Your task to perform on an android device: Open Chrome and go to settings Image 0: 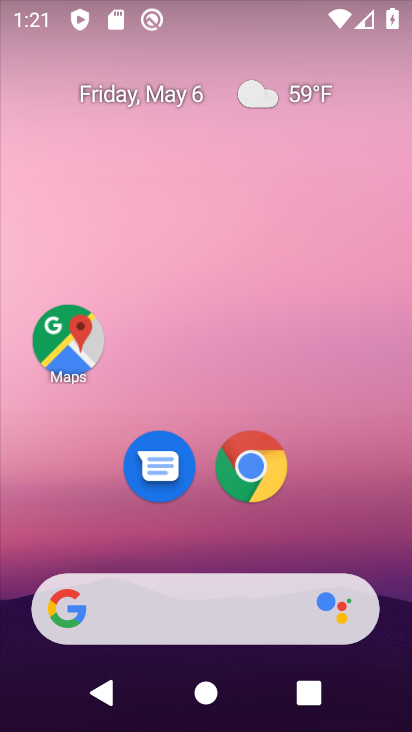
Step 0: drag from (212, 524) to (212, 93)
Your task to perform on an android device: Open Chrome and go to settings Image 1: 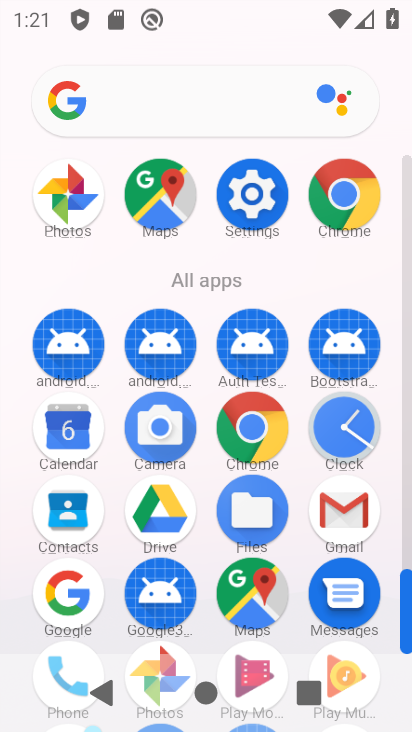
Step 1: drag from (208, 558) to (204, 155)
Your task to perform on an android device: Open Chrome and go to settings Image 2: 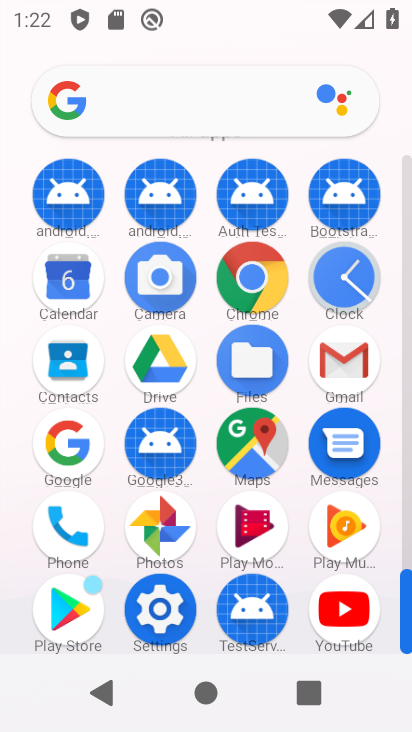
Step 2: click (244, 271)
Your task to perform on an android device: Open Chrome and go to settings Image 3: 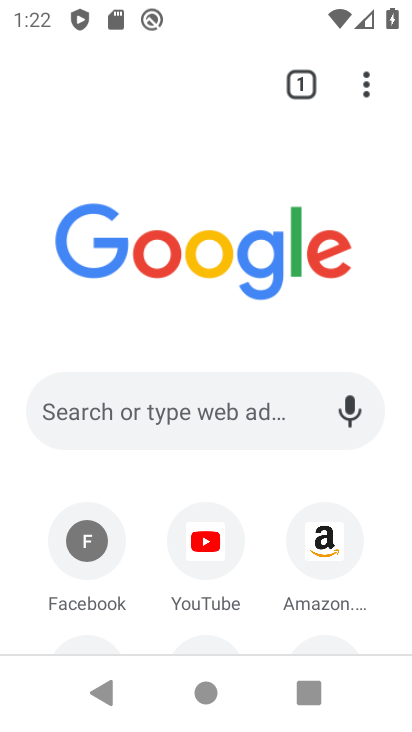
Step 3: click (368, 80)
Your task to perform on an android device: Open Chrome and go to settings Image 4: 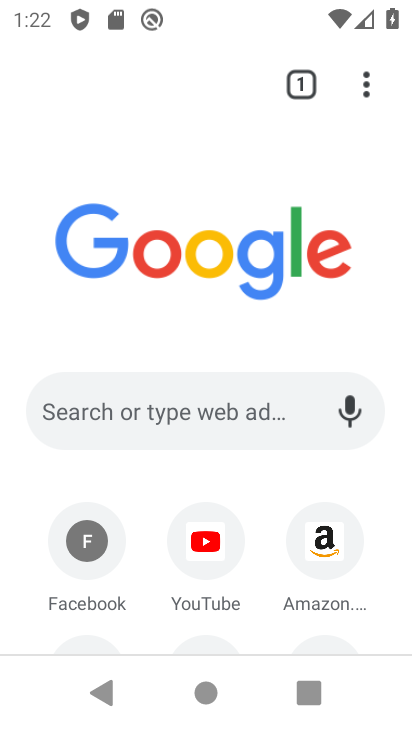
Step 4: click (363, 74)
Your task to perform on an android device: Open Chrome and go to settings Image 5: 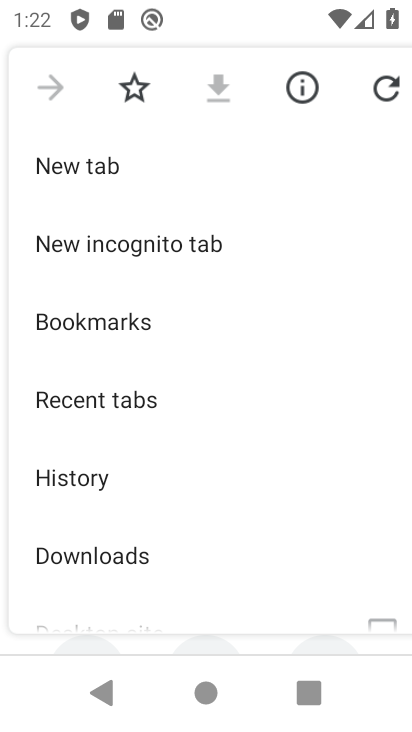
Step 5: drag from (185, 572) to (202, 129)
Your task to perform on an android device: Open Chrome and go to settings Image 6: 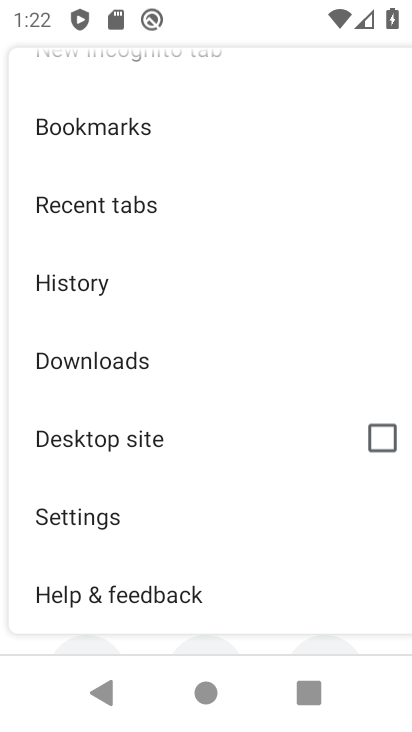
Step 6: click (128, 511)
Your task to perform on an android device: Open Chrome and go to settings Image 7: 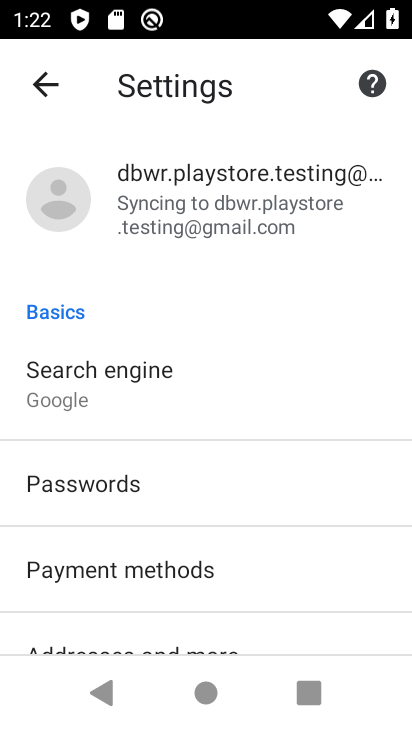
Step 7: task complete